Your task to perform on an android device: Open location settings Image 0: 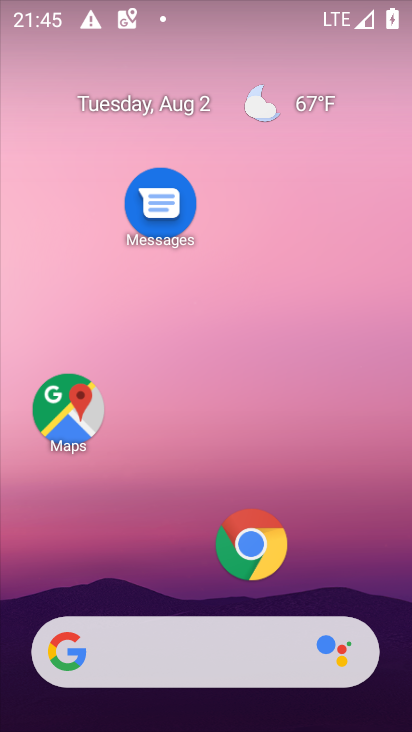
Step 0: drag from (169, 264) to (169, 124)
Your task to perform on an android device: Open location settings Image 1: 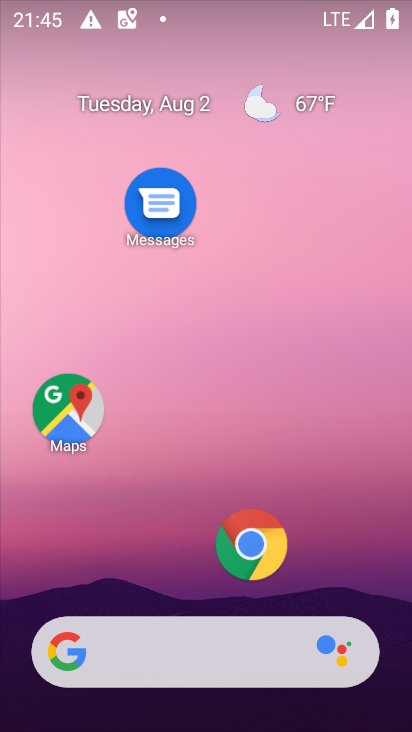
Step 1: drag from (181, 564) to (215, 65)
Your task to perform on an android device: Open location settings Image 2: 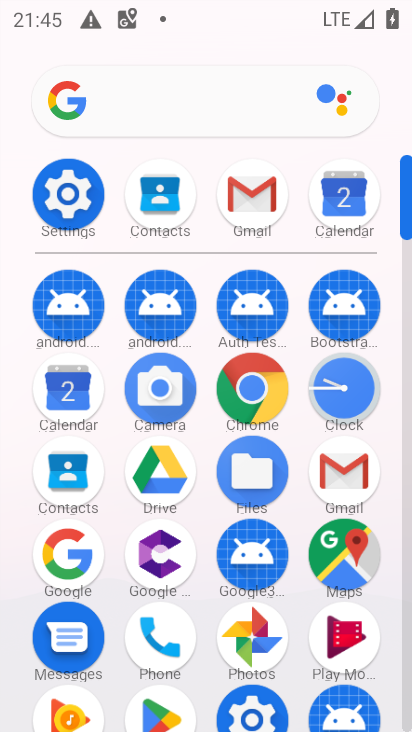
Step 2: click (92, 203)
Your task to perform on an android device: Open location settings Image 3: 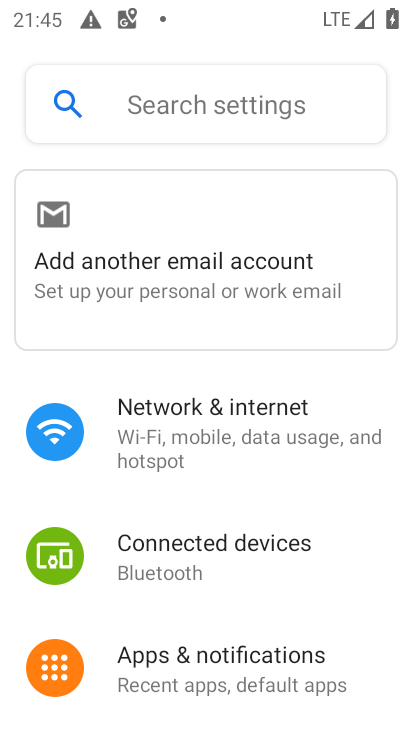
Step 3: drag from (195, 640) to (248, 173)
Your task to perform on an android device: Open location settings Image 4: 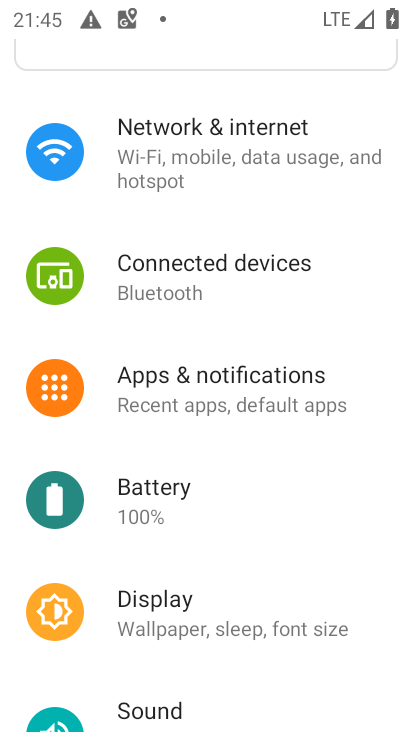
Step 4: drag from (201, 648) to (193, 244)
Your task to perform on an android device: Open location settings Image 5: 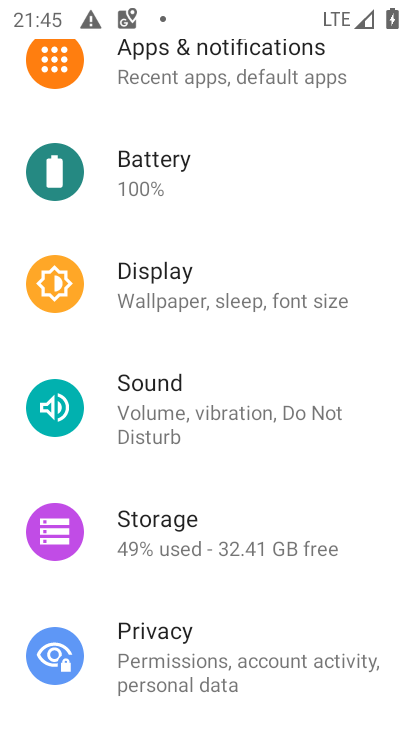
Step 5: drag from (184, 591) to (201, 304)
Your task to perform on an android device: Open location settings Image 6: 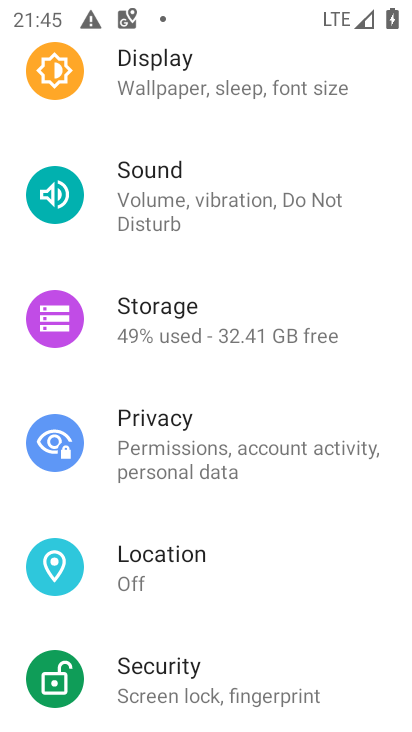
Step 6: click (201, 550)
Your task to perform on an android device: Open location settings Image 7: 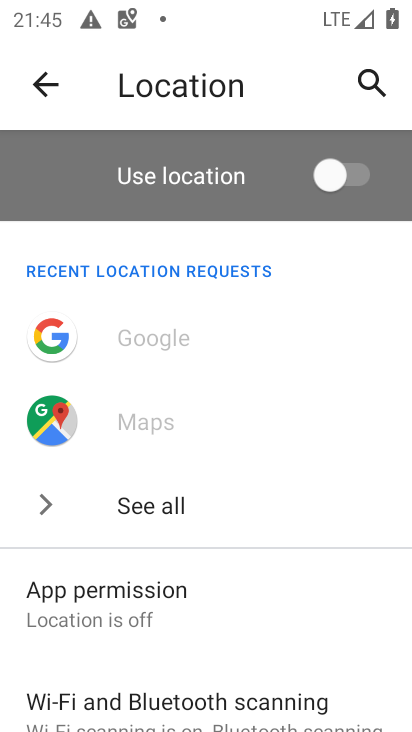
Step 7: task complete